Your task to perform on an android device: Search for sushi restaurants on Maps Image 0: 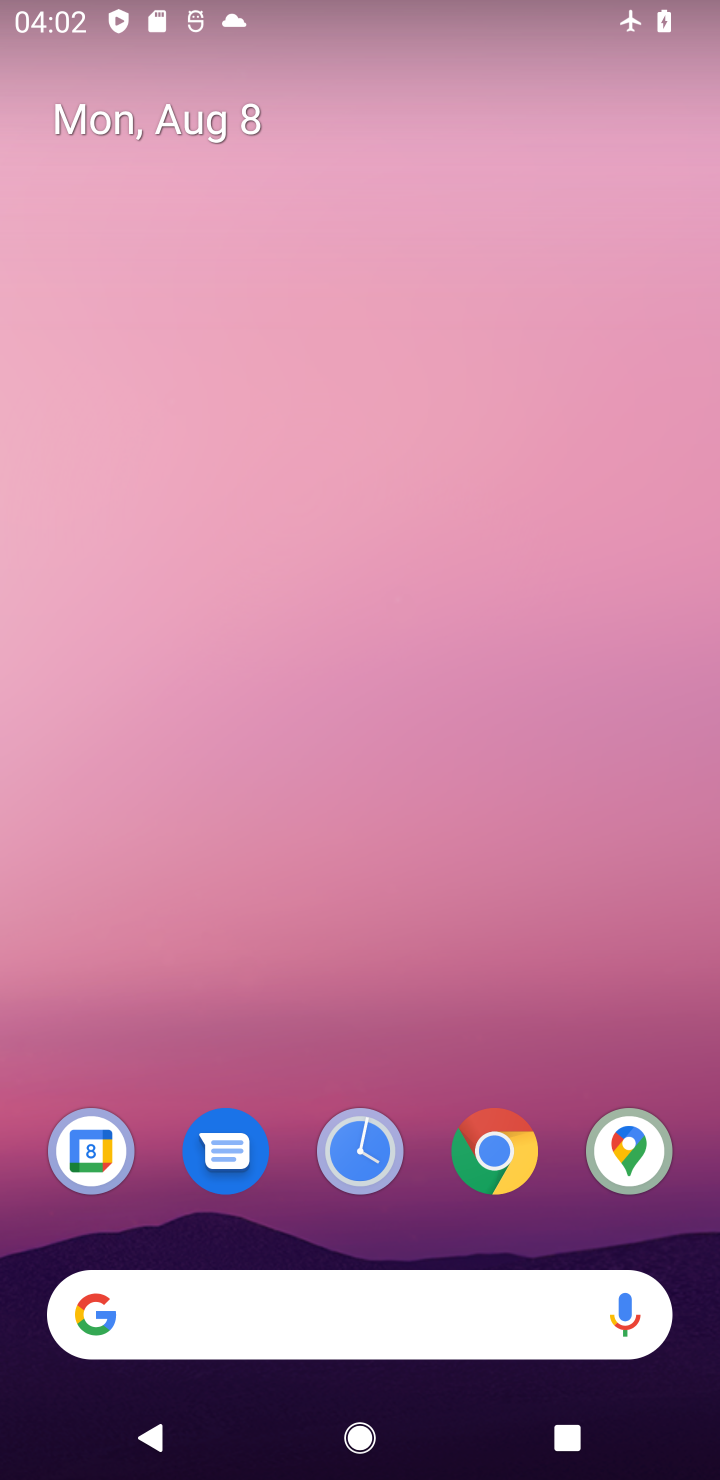
Step 0: drag from (397, 1034) to (362, 81)
Your task to perform on an android device: Search for sushi restaurants on Maps Image 1: 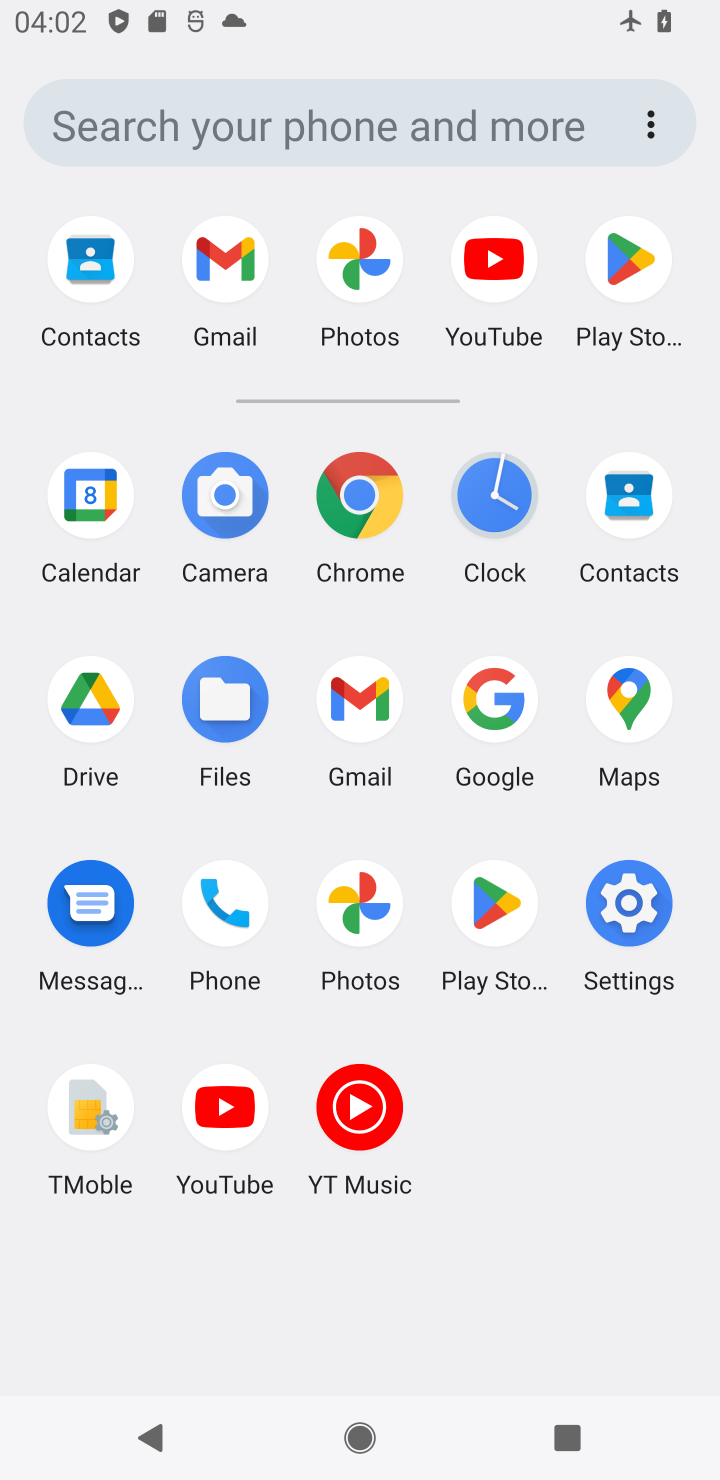
Step 1: click (609, 725)
Your task to perform on an android device: Search for sushi restaurants on Maps Image 2: 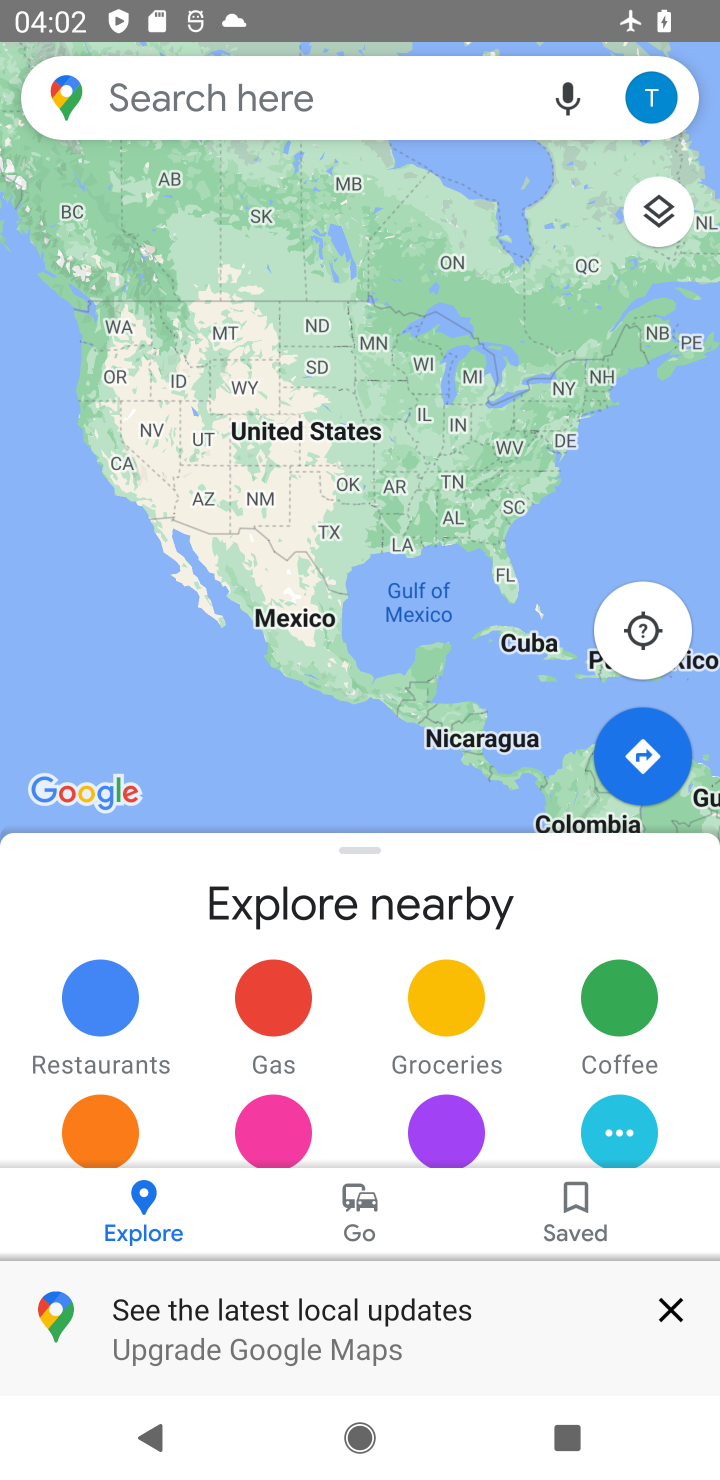
Step 2: click (269, 83)
Your task to perform on an android device: Search for sushi restaurants on Maps Image 3: 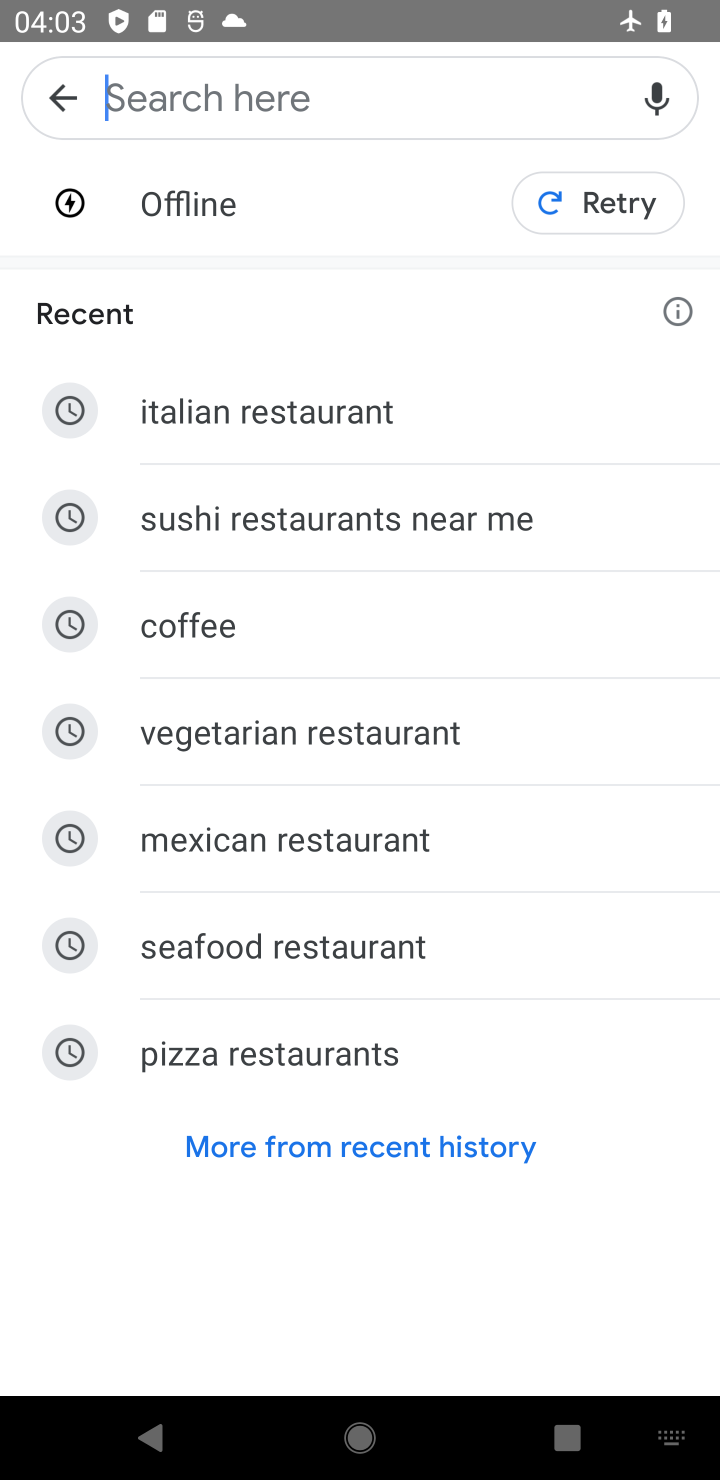
Step 3: click (342, 524)
Your task to perform on an android device: Search for sushi restaurants on Maps Image 4: 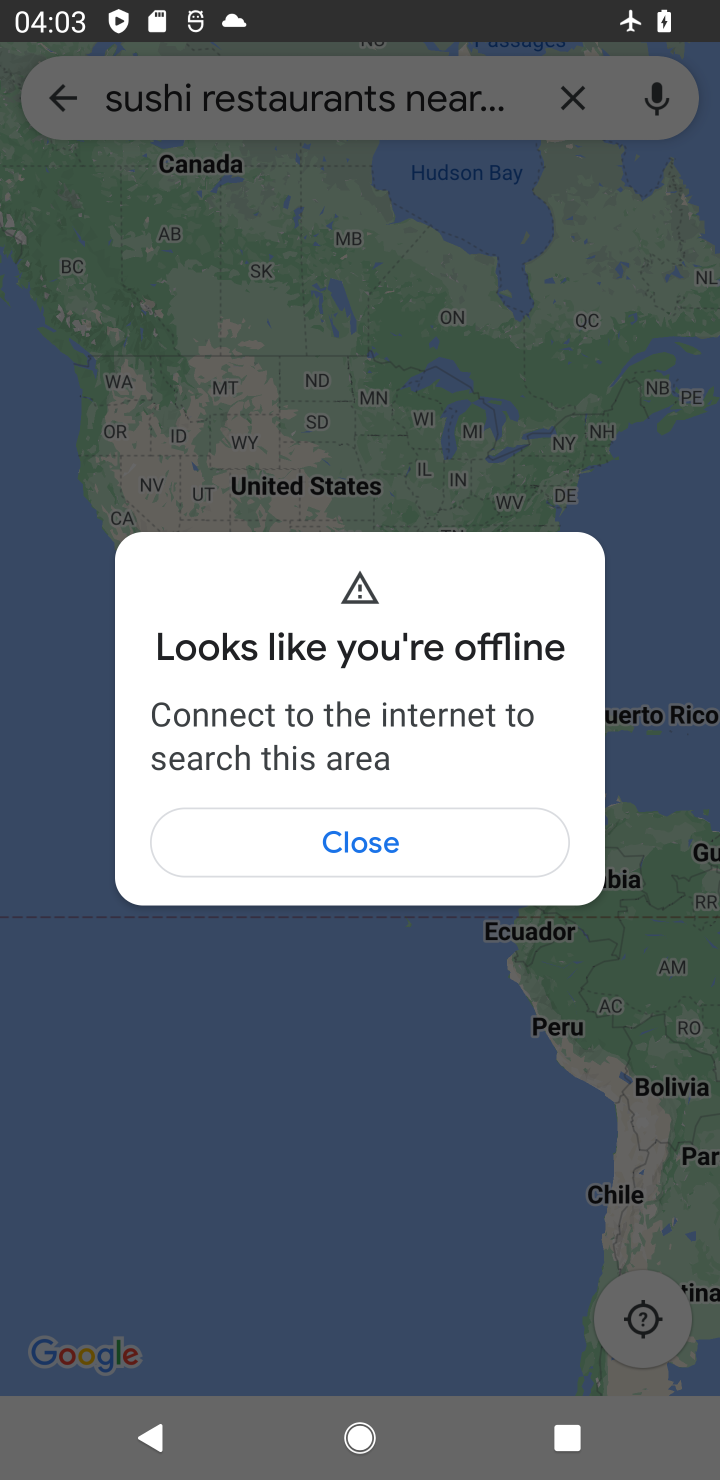
Step 4: task complete